Your task to perform on an android device: Add "amazon basics triple a" to the cart on target Image 0: 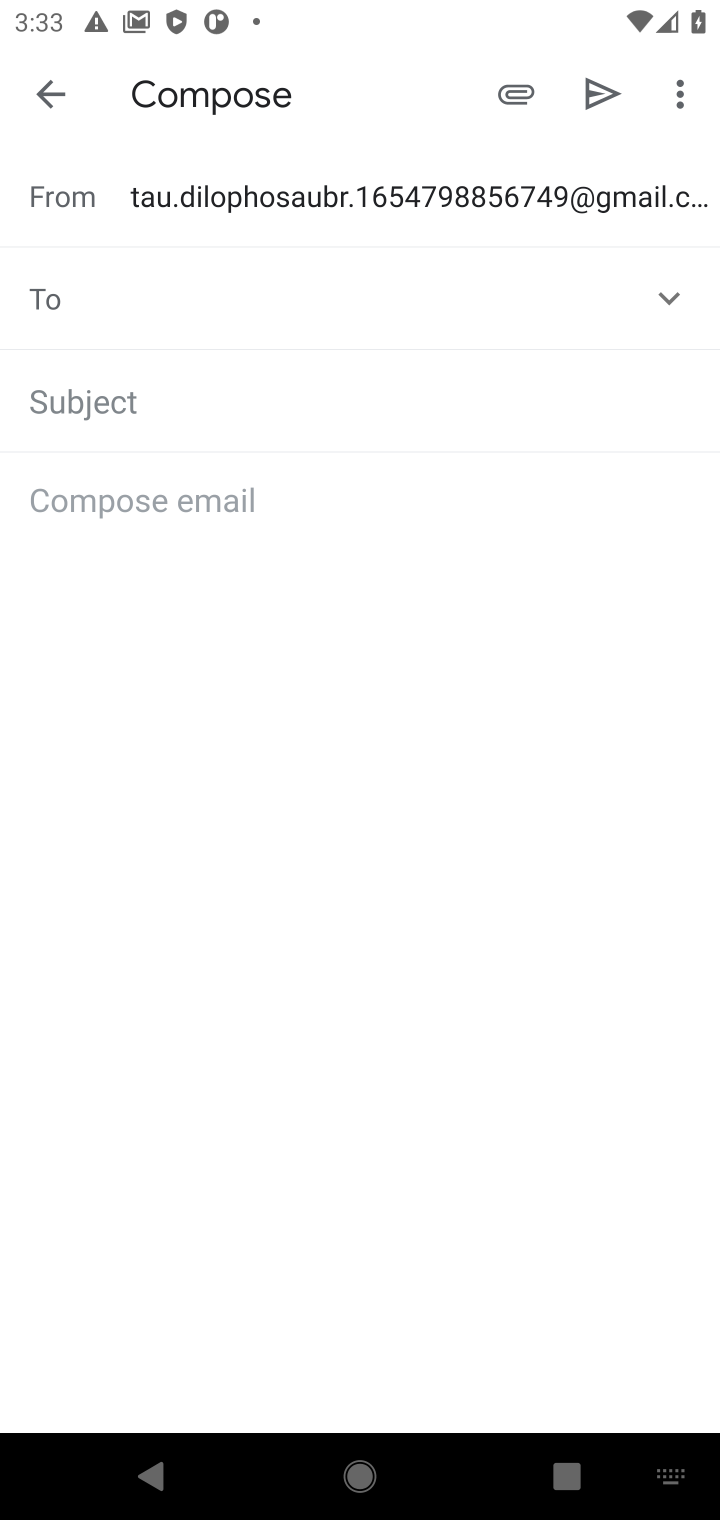
Step 0: press home button
Your task to perform on an android device: Add "amazon basics triple a" to the cart on target Image 1: 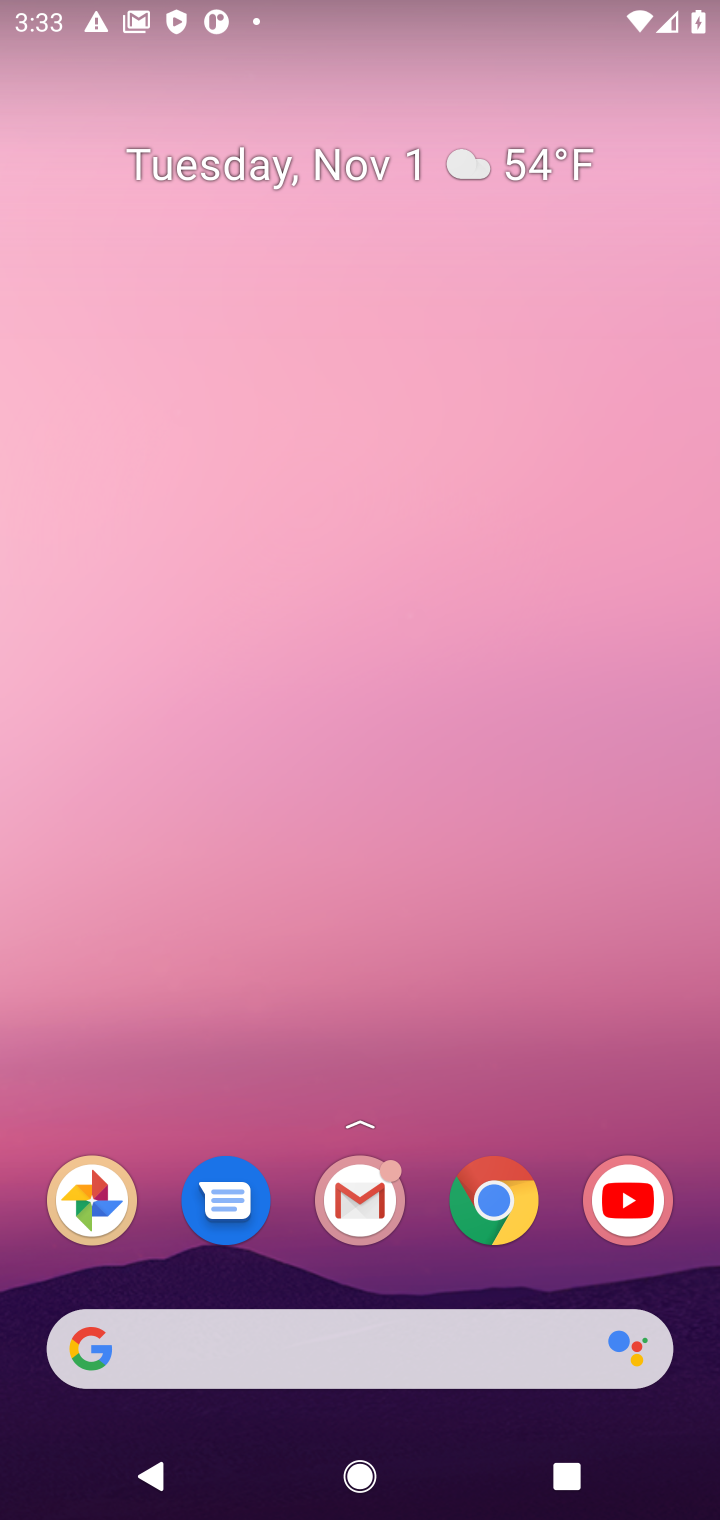
Step 1: click (91, 1348)
Your task to perform on an android device: Add "amazon basics triple a" to the cart on target Image 2: 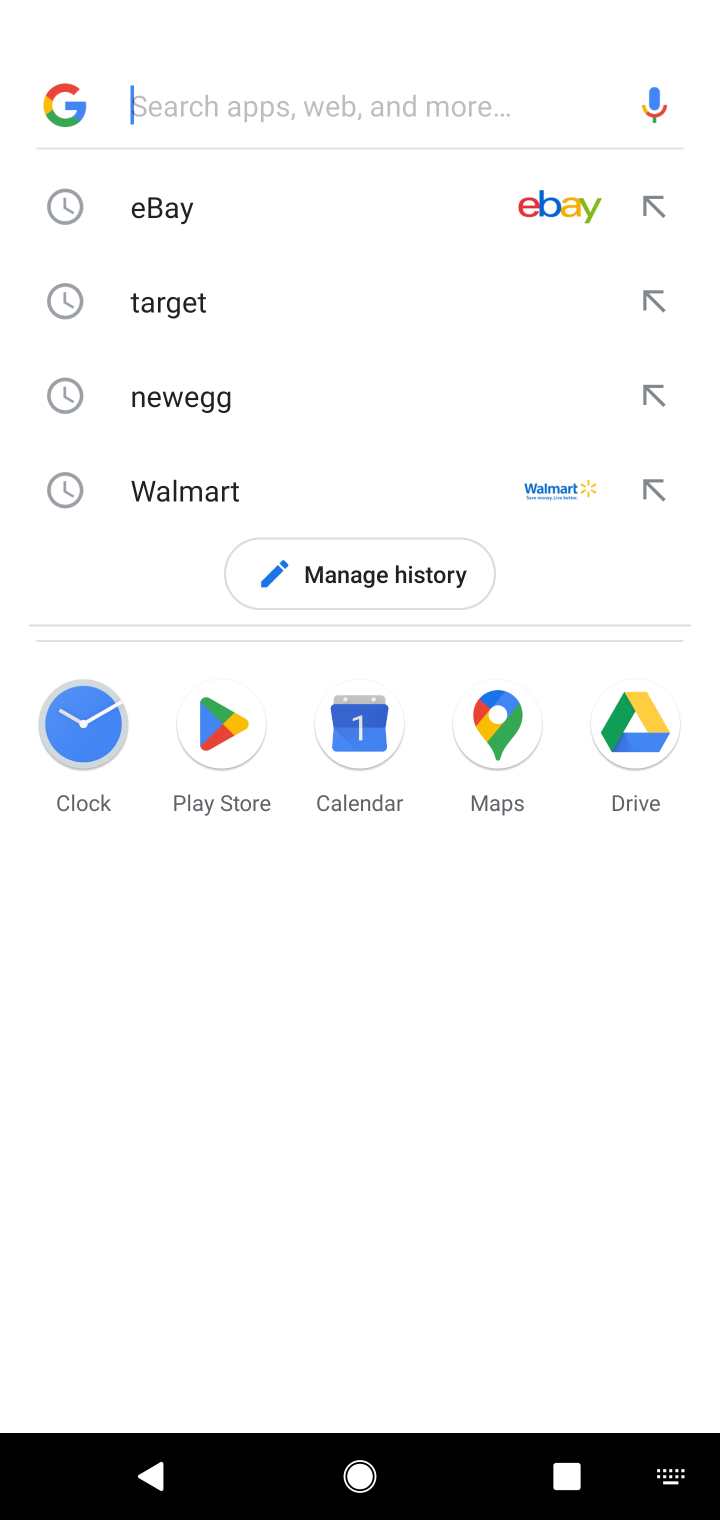
Step 2: click (212, 297)
Your task to perform on an android device: Add "amazon basics triple a" to the cart on target Image 3: 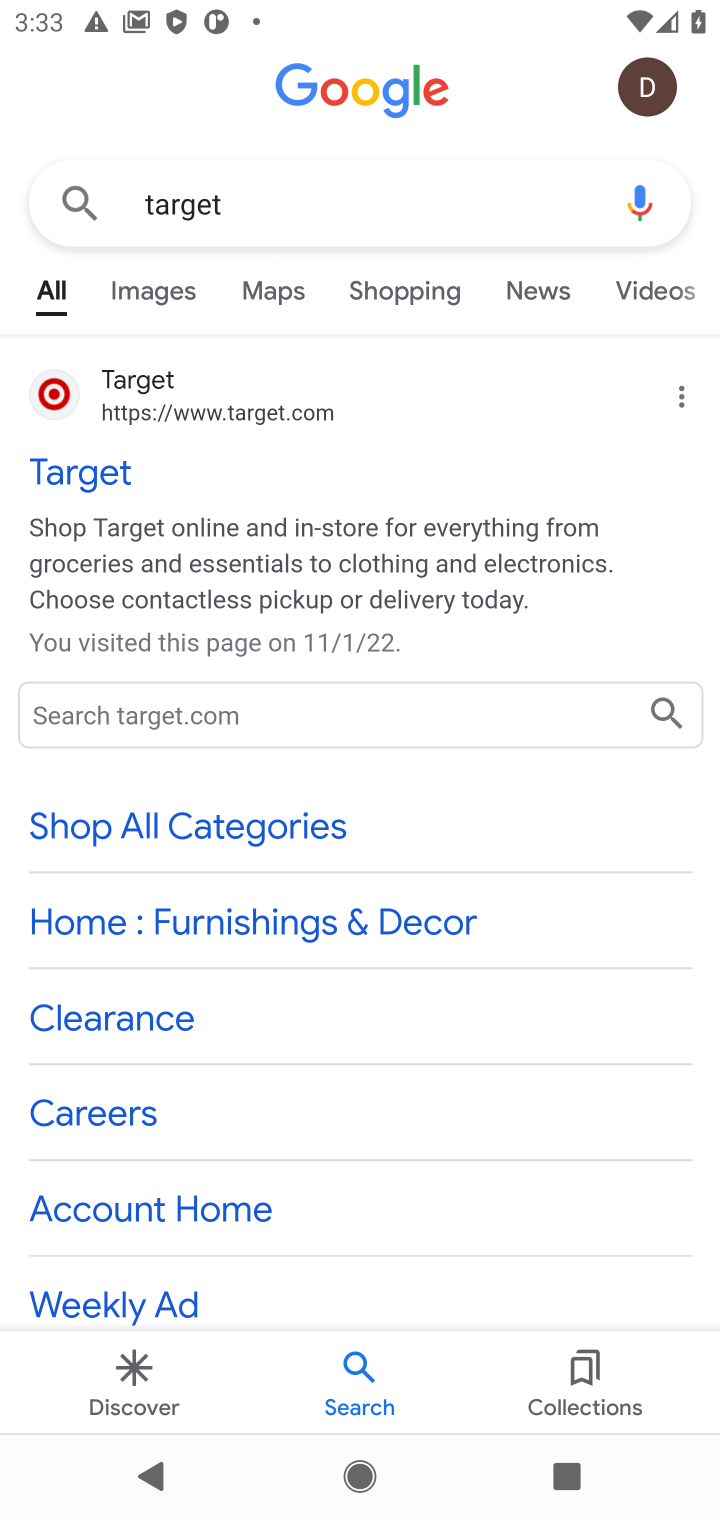
Step 3: click (108, 476)
Your task to perform on an android device: Add "amazon basics triple a" to the cart on target Image 4: 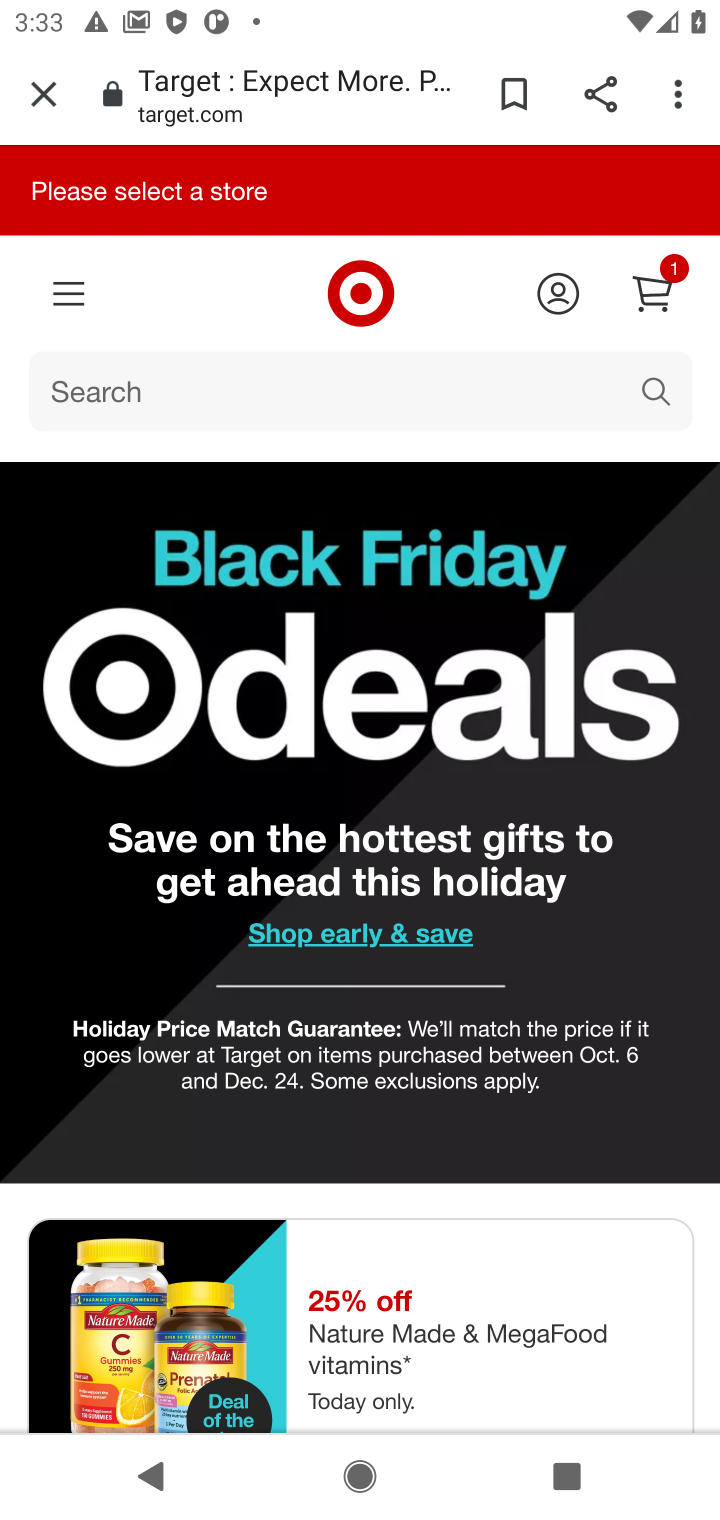
Step 4: type "amazon basics triple"
Your task to perform on an android device: Add "amazon basics triple a" to the cart on target Image 5: 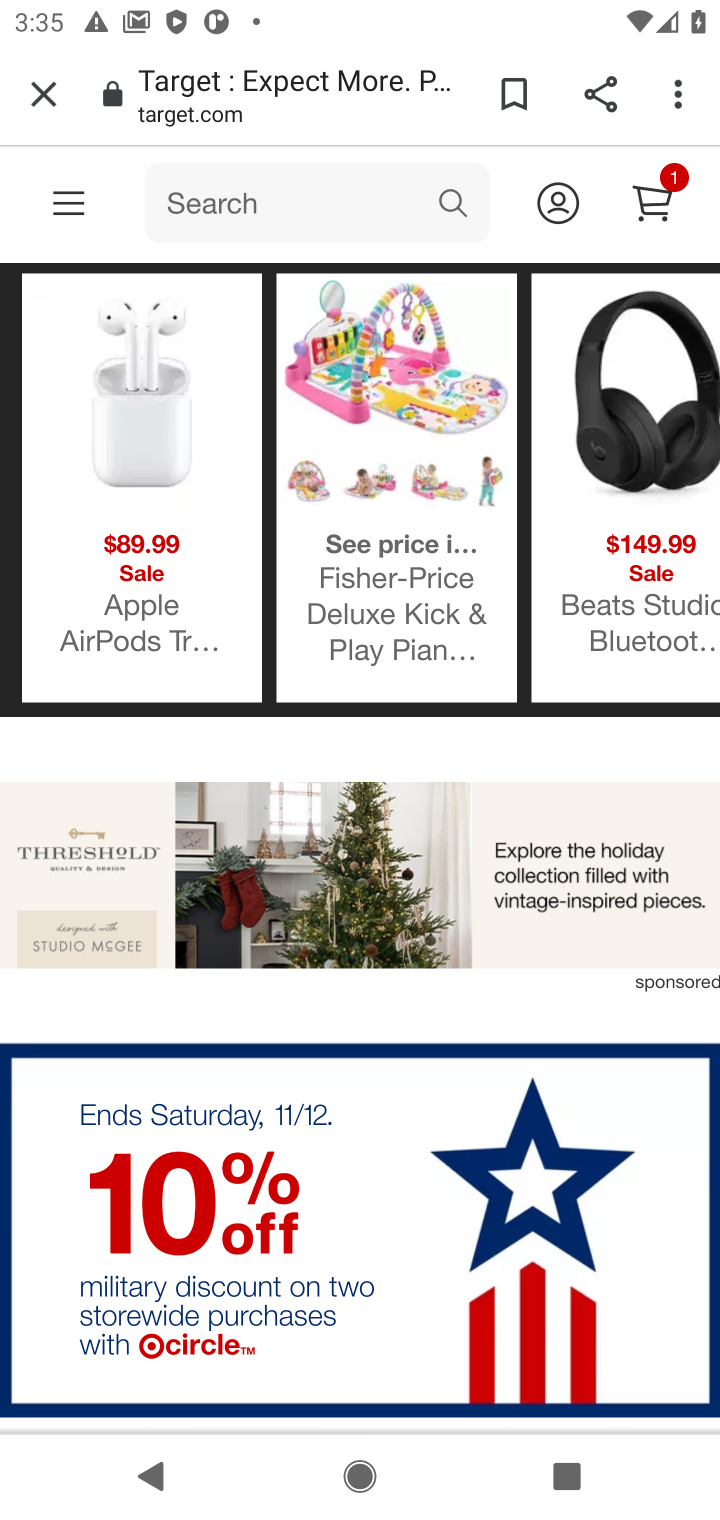
Step 5: click (441, 204)
Your task to perform on an android device: Add "amazon basics triple a" to the cart on target Image 6: 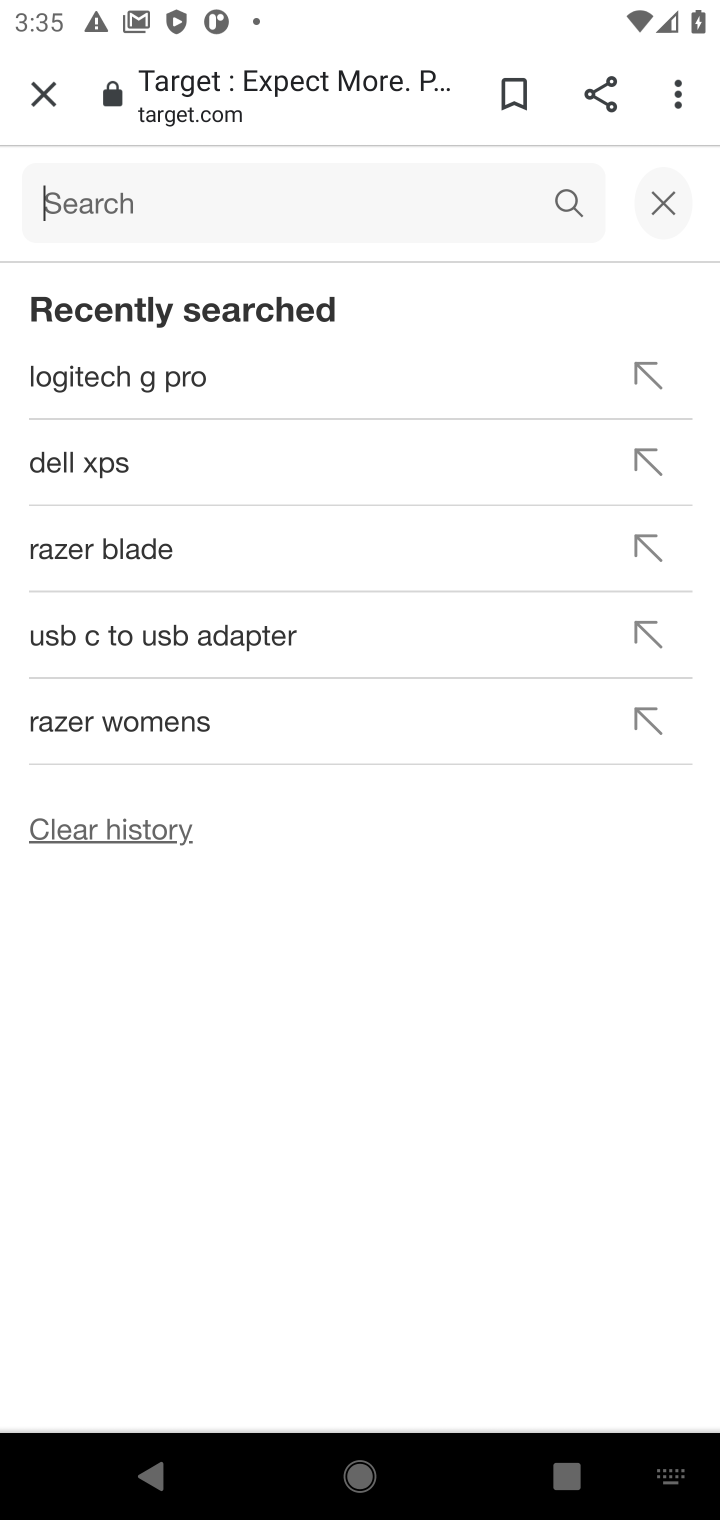
Step 6: type "amazon basics triple"
Your task to perform on an android device: Add "amazon basics triple a" to the cart on target Image 7: 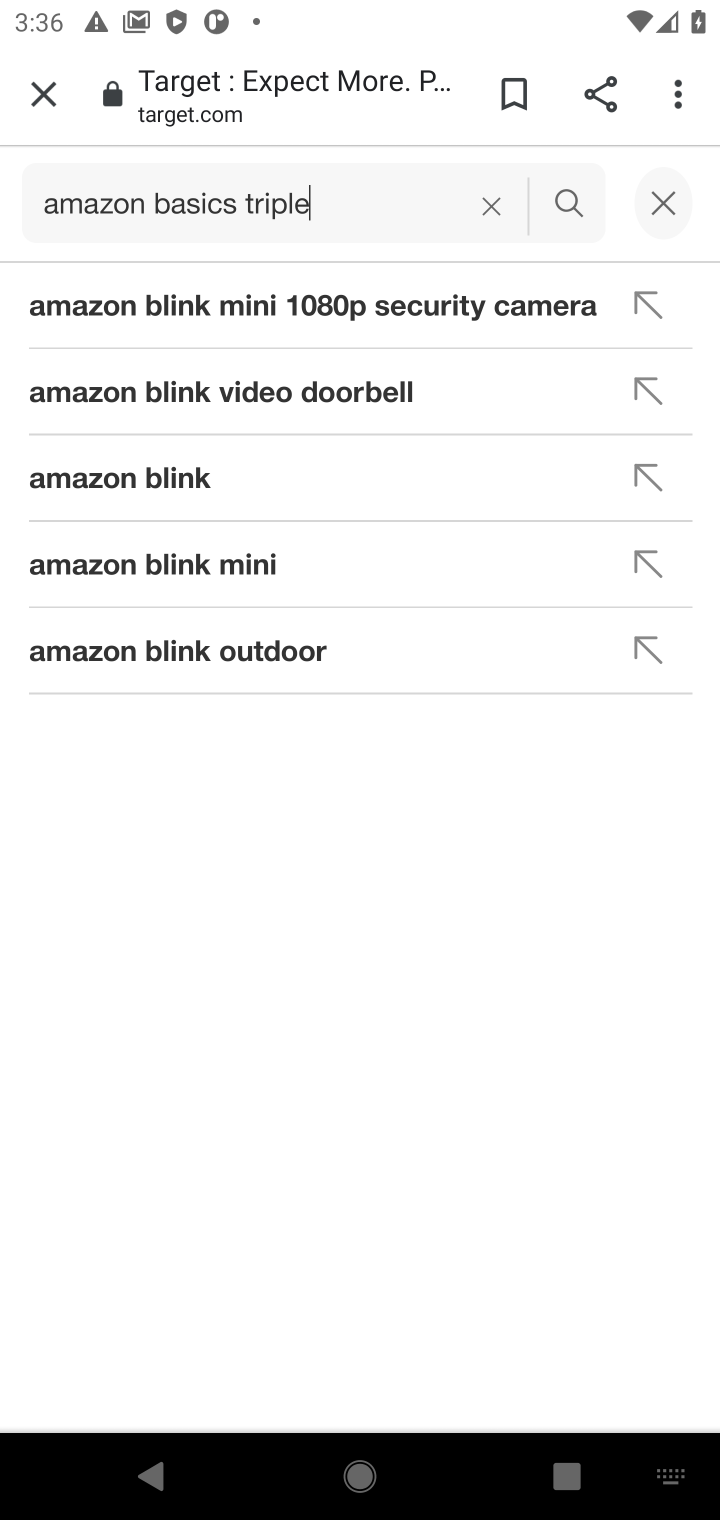
Step 7: click (266, 304)
Your task to perform on an android device: Add "amazon basics triple a" to the cart on target Image 8: 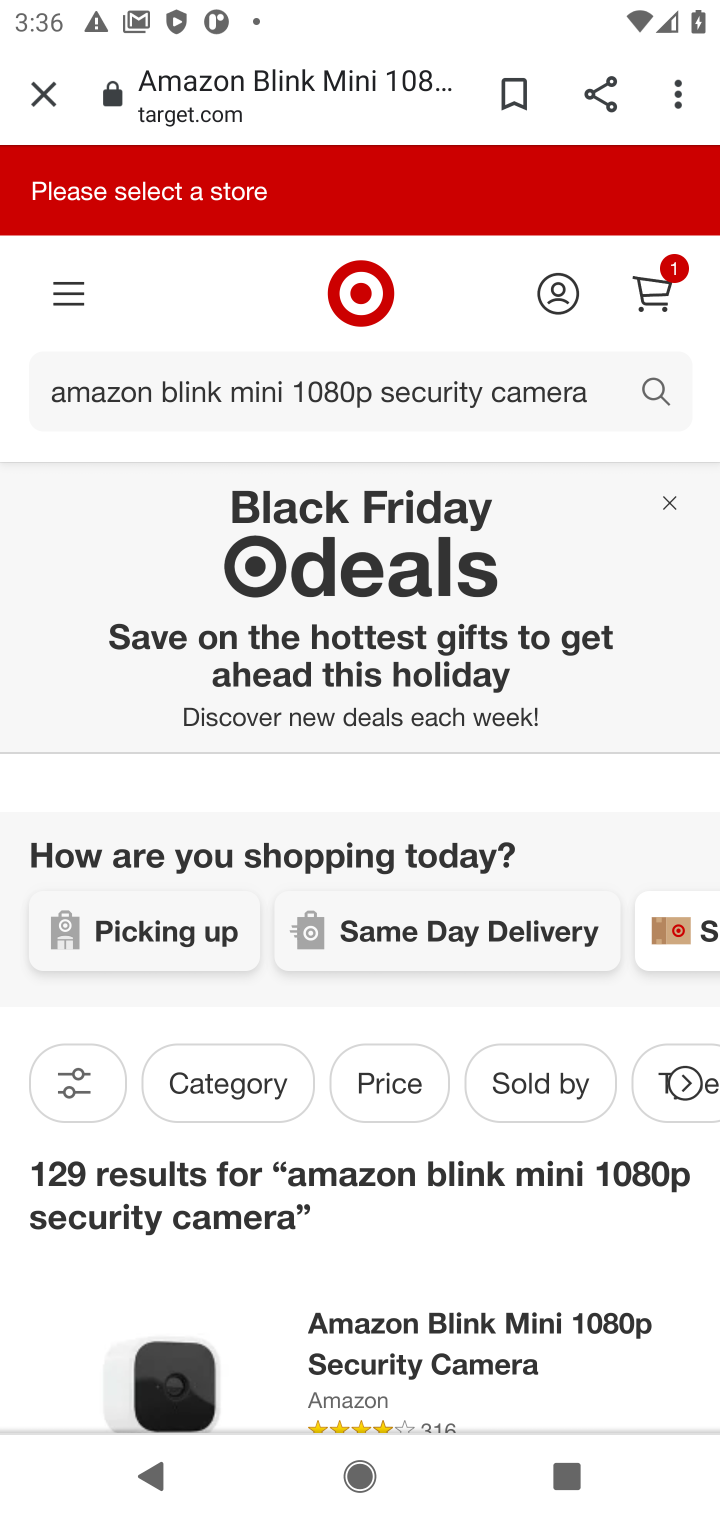
Step 8: drag from (634, 1284) to (629, 559)
Your task to perform on an android device: Add "amazon basics triple a" to the cart on target Image 9: 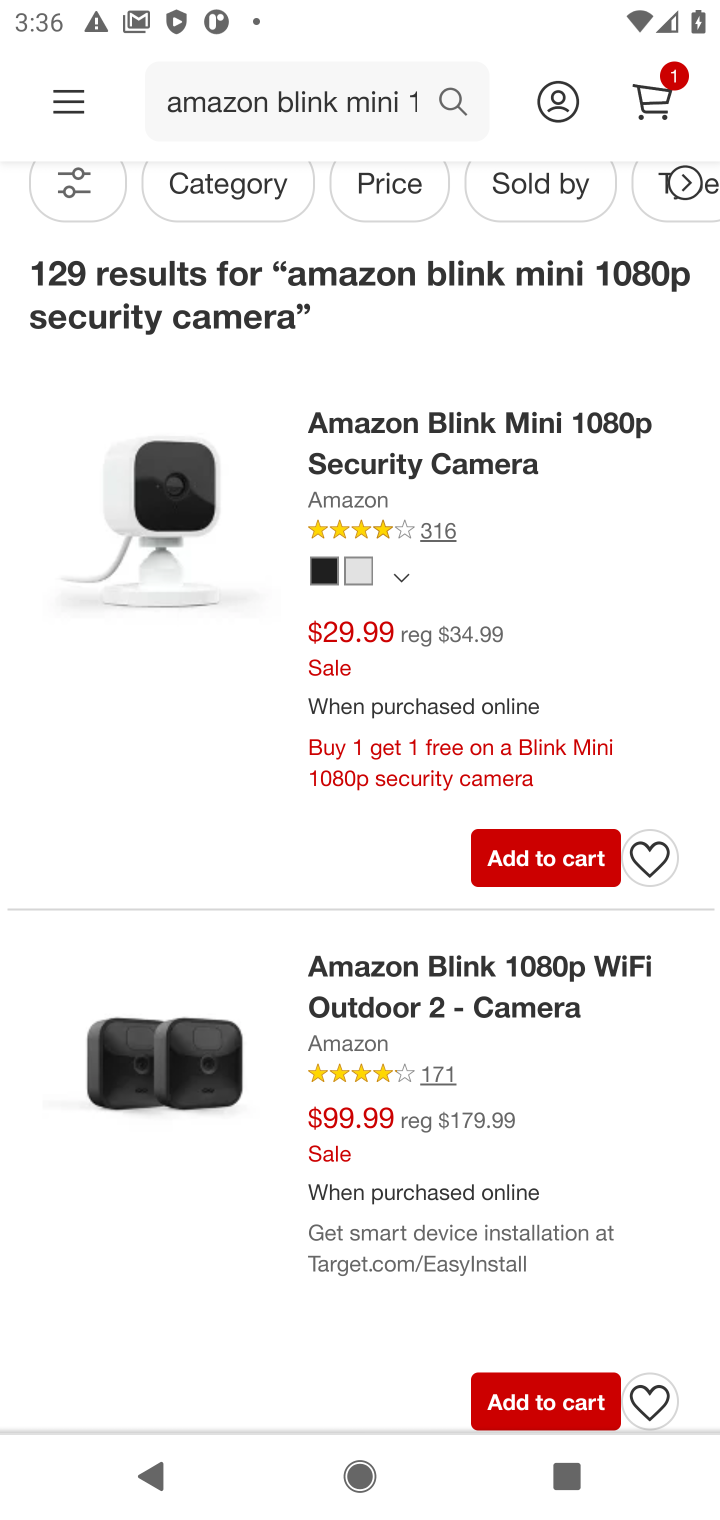
Step 9: click (542, 846)
Your task to perform on an android device: Add "amazon basics triple a" to the cart on target Image 10: 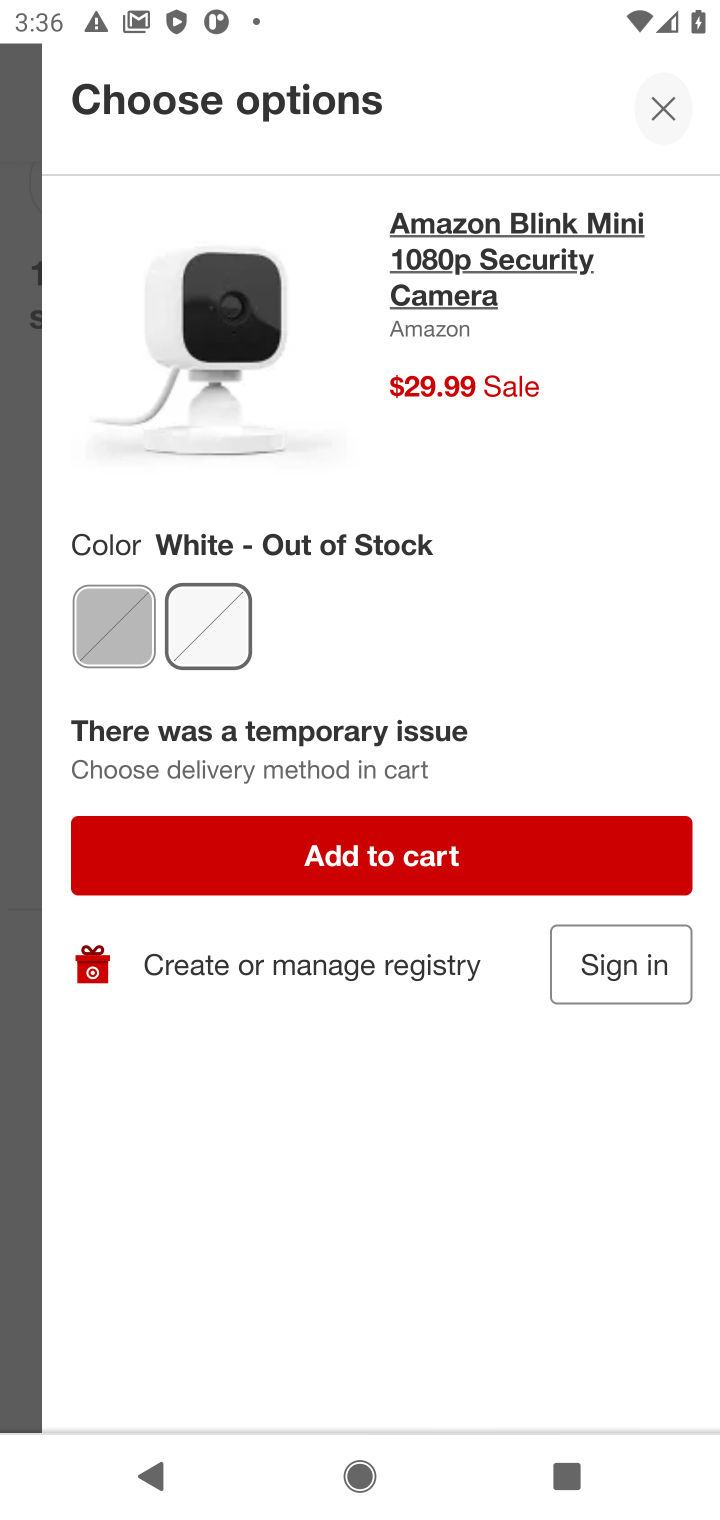
Step 10: click (467, 853)
Your task to perform on an android device: Add "amazon basics triple a" to the cart on target Image 11: 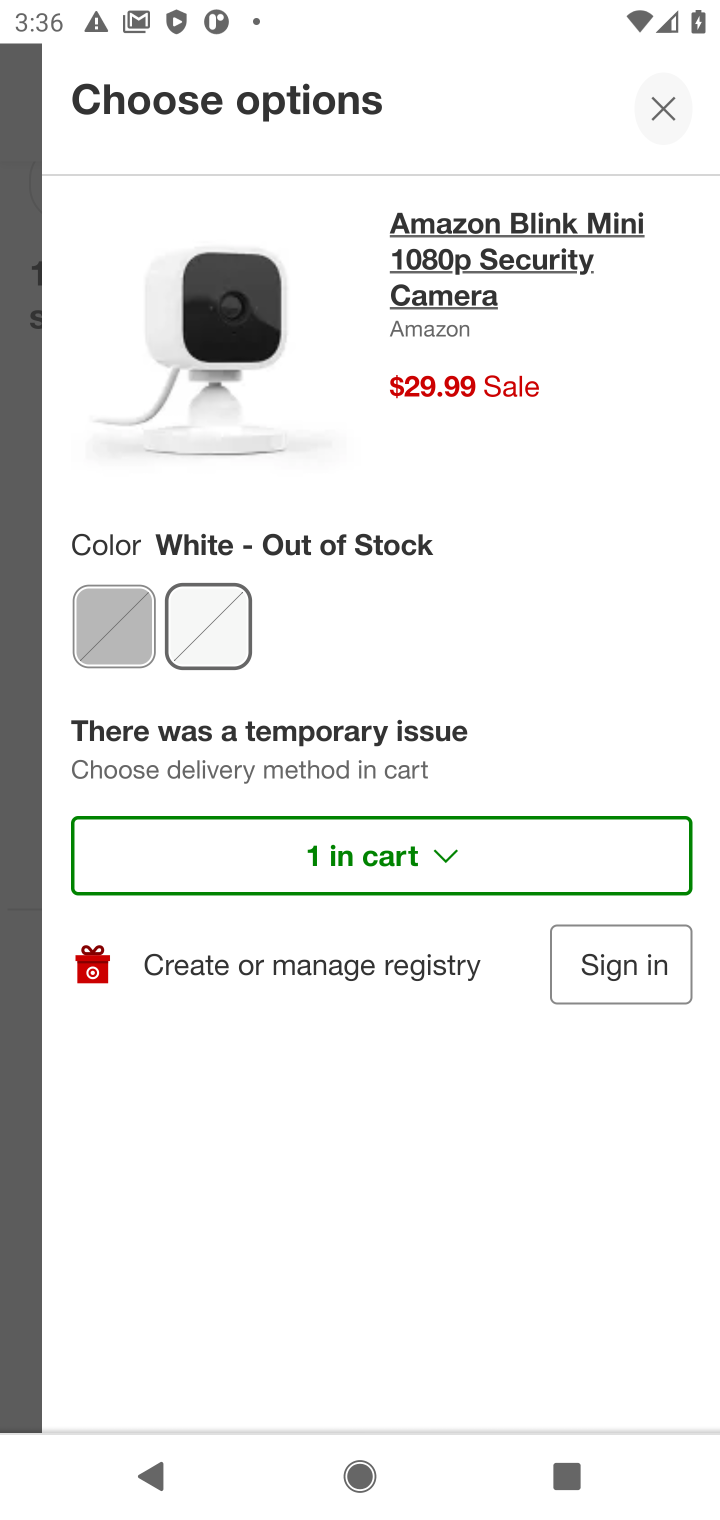
Step 11: task complete